Your task to perform on an android device: Open Google Chrome Image 0: 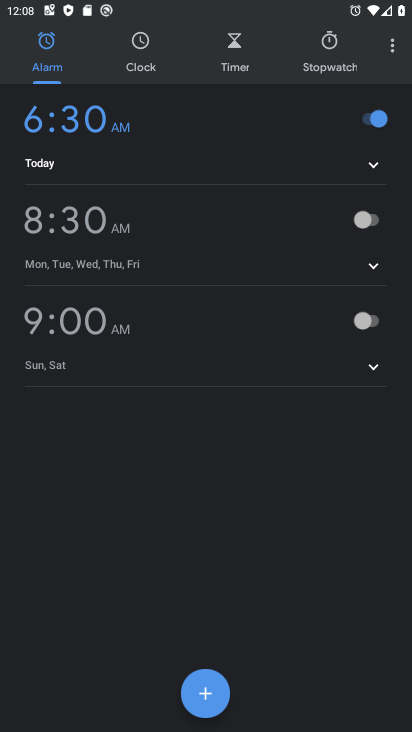
Step 0: press home button
Your task to perform on an android device: Open Google Chrome Image 1: 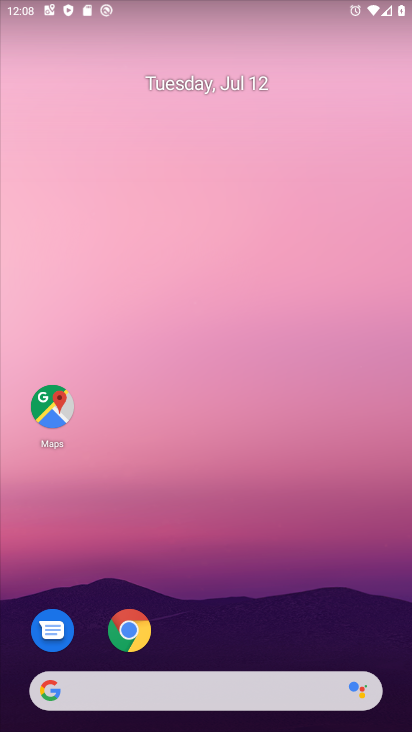
Step 1: click (130, 630)
Your task to perform on an android device: Open Google Chrome Image 2: 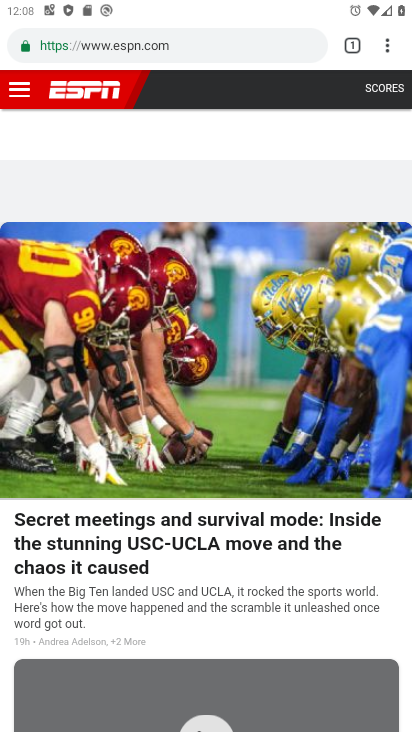
Step 2: task complete